Your task to perform on an android device: change notification settings in the gmail app Image 0: 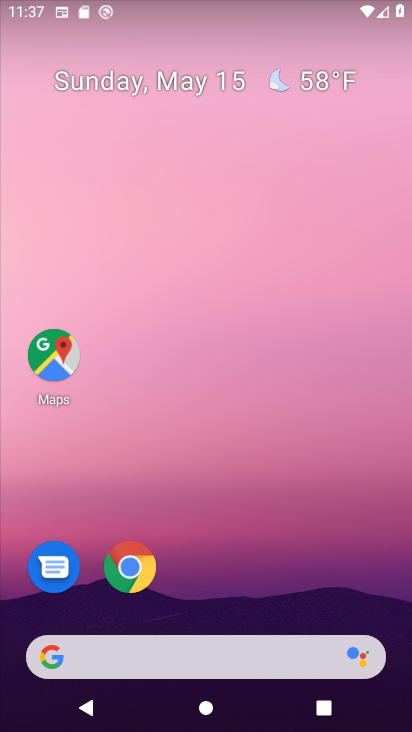
Step 0: click (190, 283)
Your task to perform on an android device: change notification settings in the gmail app Image 1: 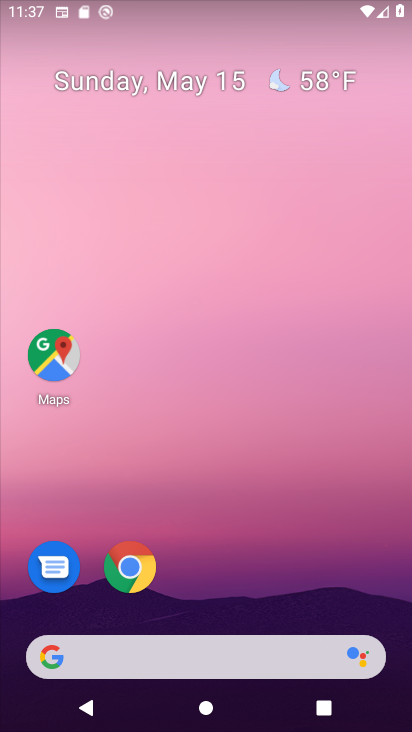
Step 1: drag from (202, 618) to (227, 247)
Your task to perform on an android device: change notification settings in the gmail app Image 2: 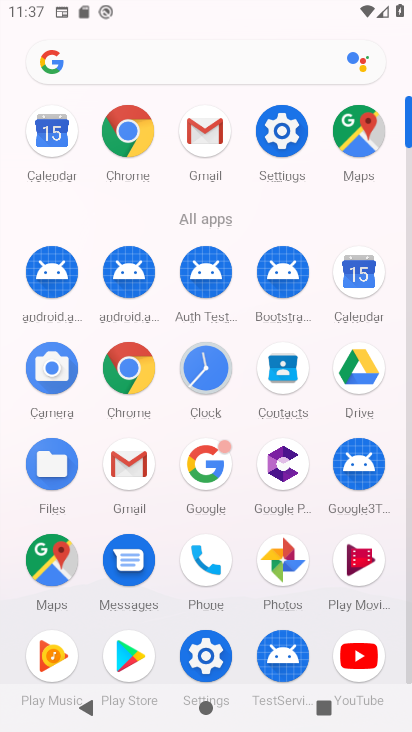
Step 2: click (203, 127)
Your task to perform on an android device: change notification settings in the gmail app Image 3: 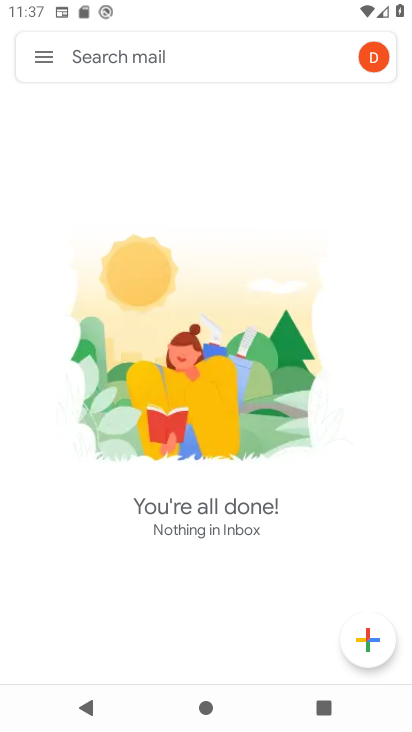
Step 3: click (50, 57)
Your task to perform on an android device: change notification settings in the gmail app Image 4: 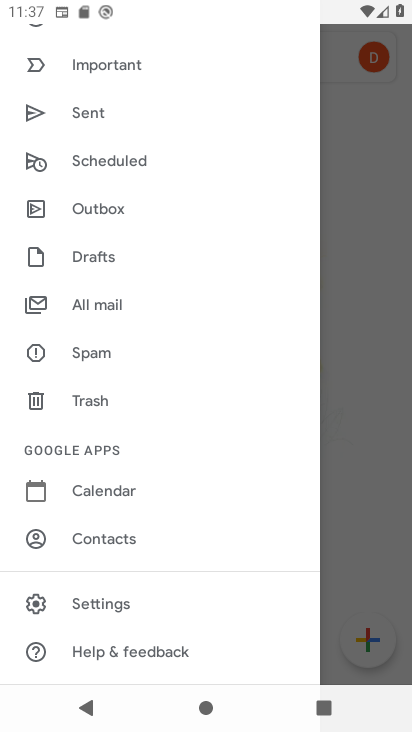
Step 4: click (110, 598)
Your task to perform on an android device: change notification settings in the gmail app Image 5: 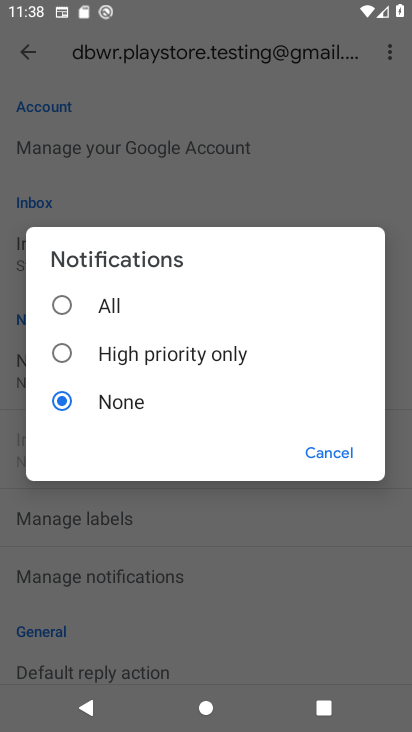
Step 5: click (177, 360)
Your task to perform on an android device: change notification settings in the gmail app Image 6: 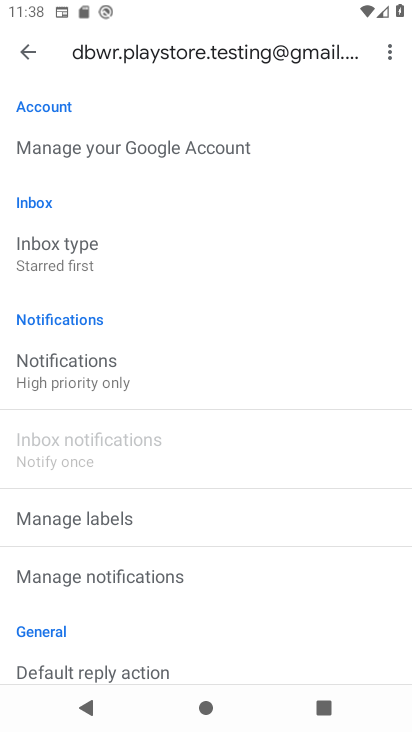
Step 6: task complete